Your task to perform on an android device: turn off location history Image 0: 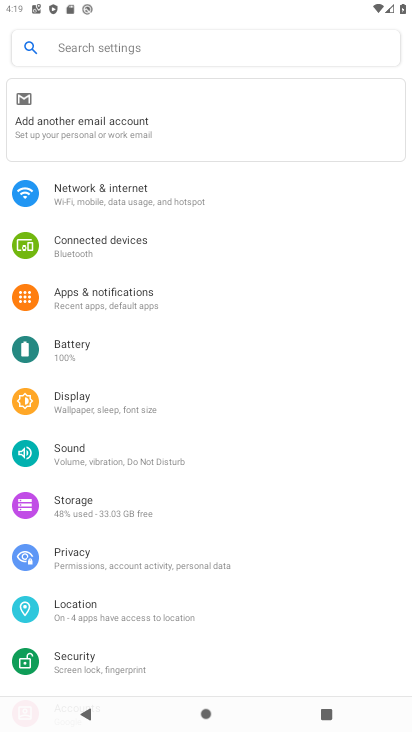
Step 0: click (157, 613)
Your task to perform on an android device: turn off location history Image 1: 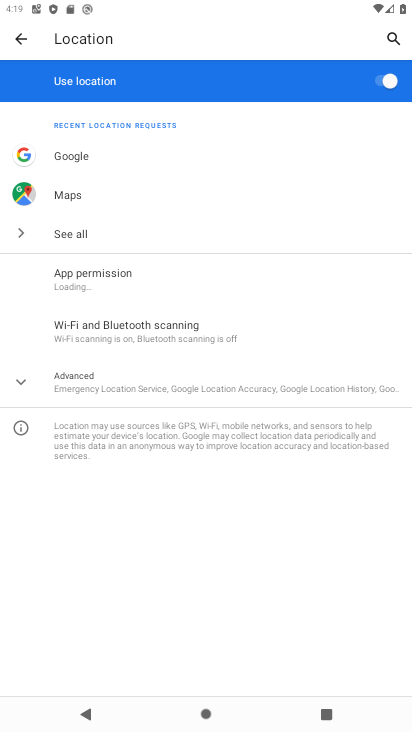
Step 1: click (57, 376)
Your task to perform on an android device: turn off location history Image 2: 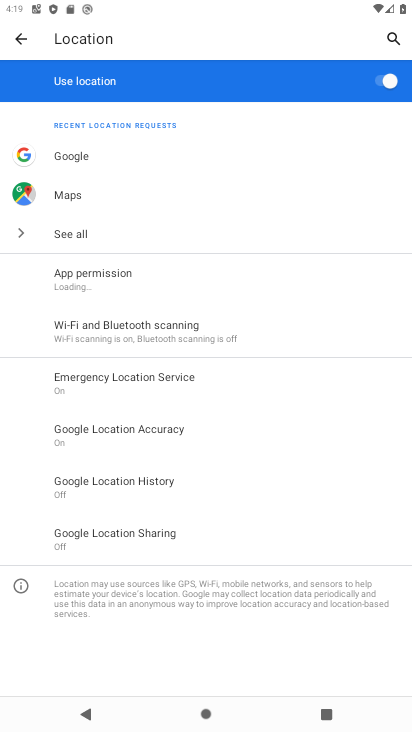
Step 2: click (148, 483)
Your task to perform on an android device: turn off location history Image 3: 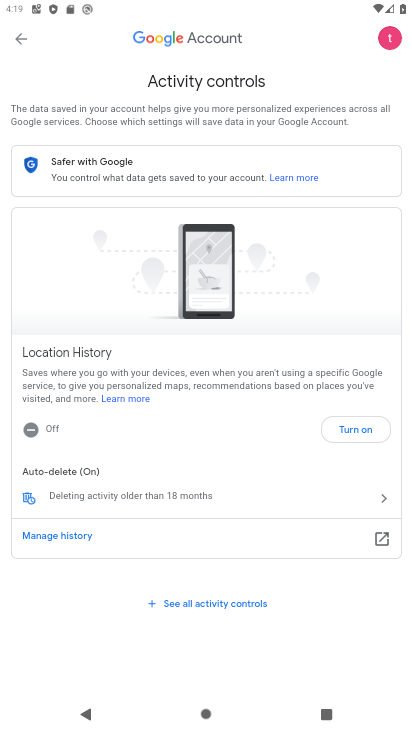
Step 3: task complete